Your task to perform on an android device: add a label to a message in the gmail app Image 0: 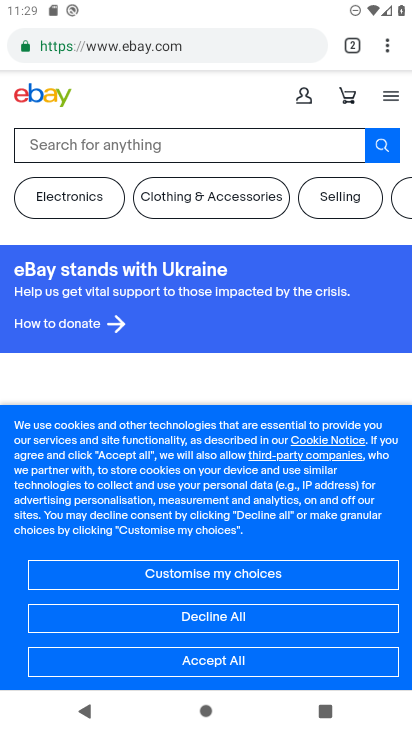
Step 0: press home button
Your task to perform on an android device: add a label to a message in the gmail app Image 1: 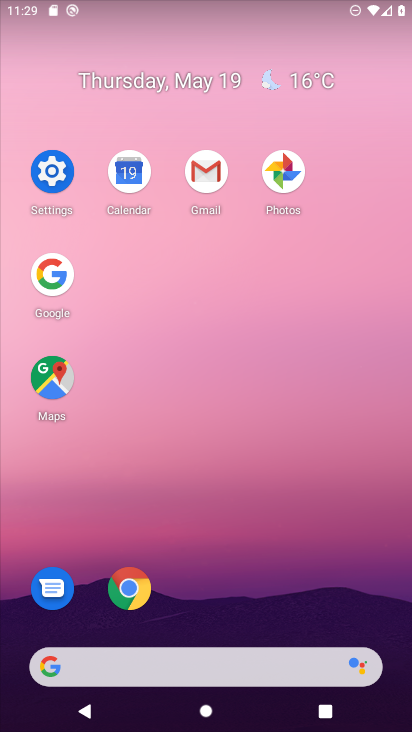
Step 1: click (206, 173)
Your task to perform on an android device: add a label to a message in the gmail app Image 2: 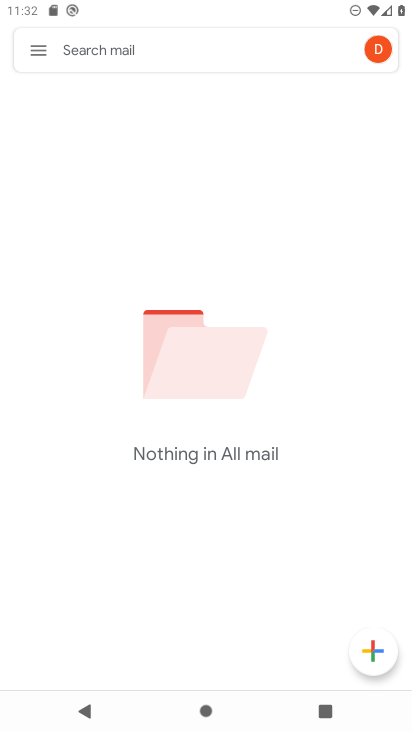
Step 2: click (29, 47)
Your task to perform on an android device: add a label to a message in the gmail app Image 3: 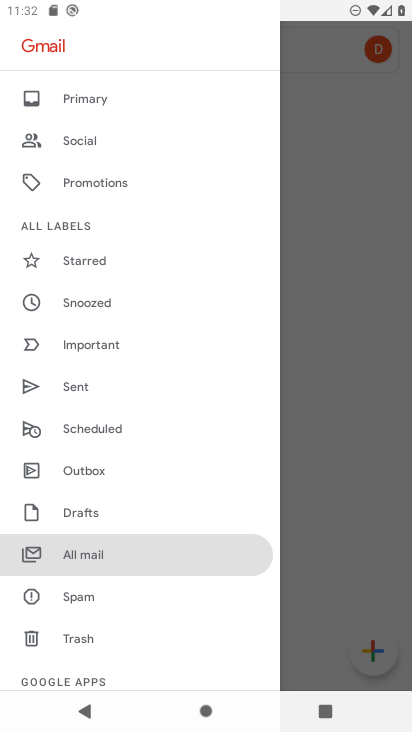
Step 3: click (129, 551)
Your task to perform on an android device: add a label to a message in the gmail app Image 4: 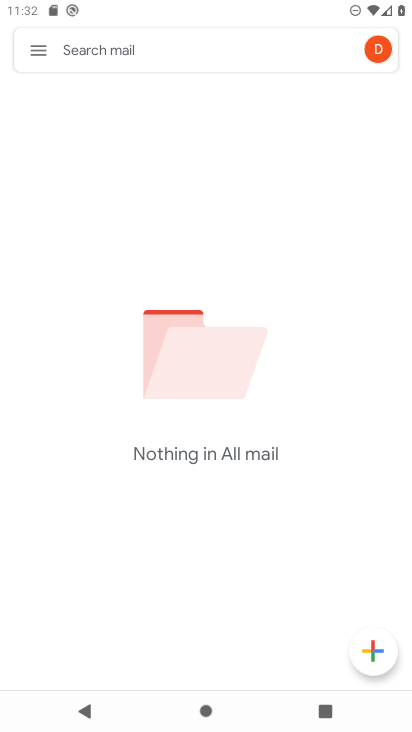
Step 4: task complete